Your task to perform on an android device: turn notification dots off Image 0: 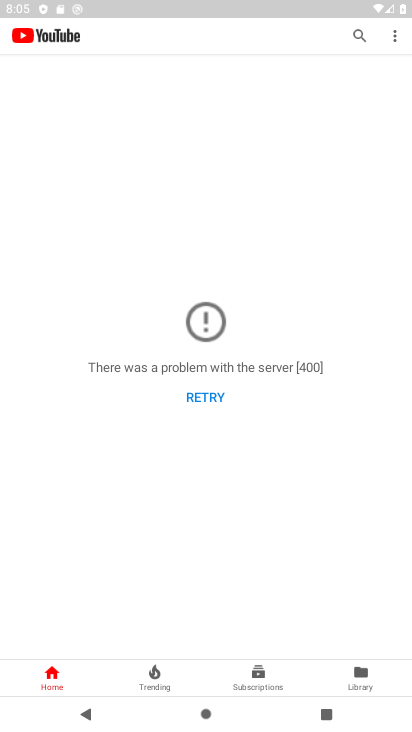
Step 0: press back button
Your task to perform on an android device: turn notification dots off Image 1: 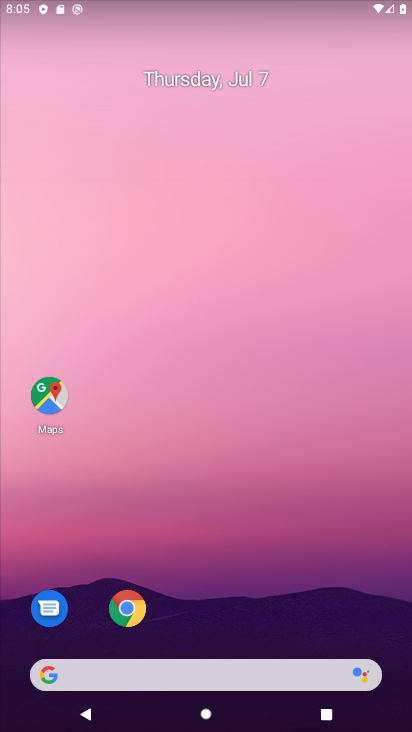
Step 1: drag from (219, 5) to (220, 483)
Your task to perform on an android device: turn notification dots off Image 2: 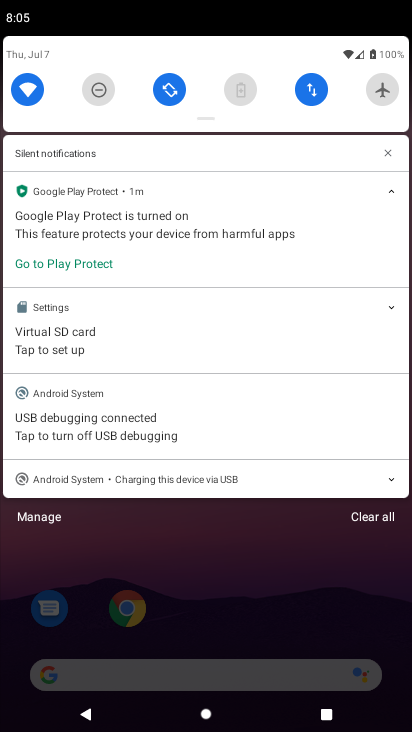
Step 2: click (174, 611)
Your task to perform on an android device: turn notification dots off Image 3: 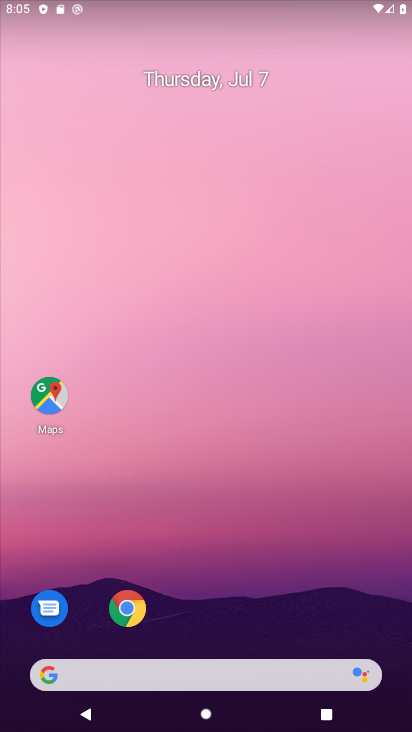
Step 3: drag from (190, 665) to (215, 324)
Your task to perform on an android device: turn notification dots off Image 4: 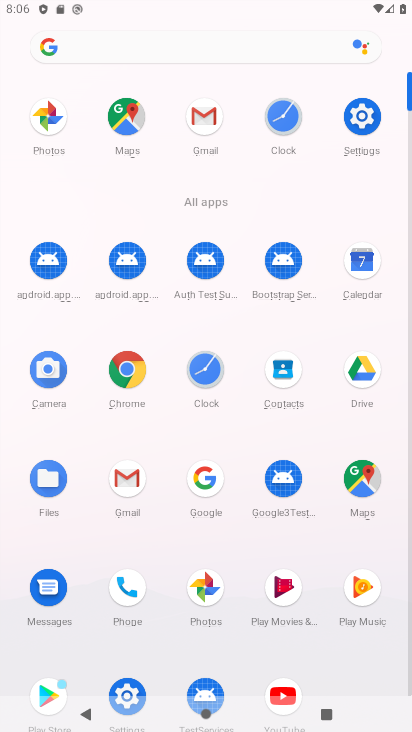
Step 4: click (353, 111)
Your task to perform on an android device: turn notification dots off Image 5: 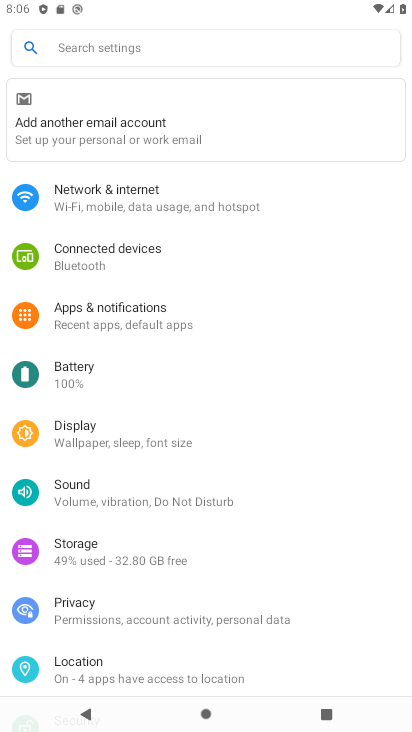
Step 5: click (132, 311)
Your task to perform on an android device: turn notification dots off Image 6: 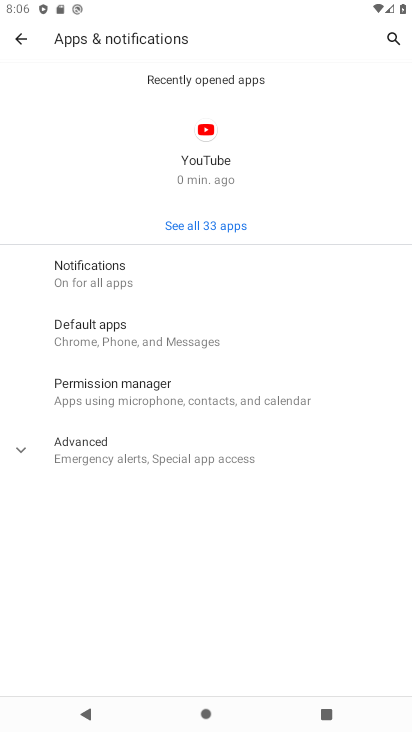
Step 6: click (119, 272)
Your task to perform on an android device: turn notification dots off Image 7: 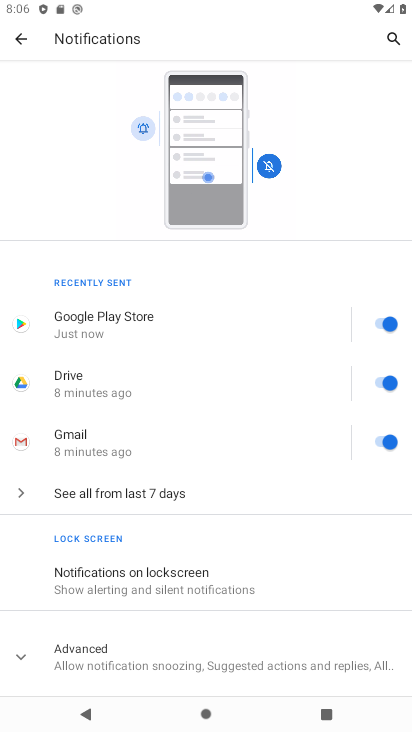
Step 7: drag from (152, 621) to (148, 333)
Your task to perform on an android device: turn notification dots off Image 8: 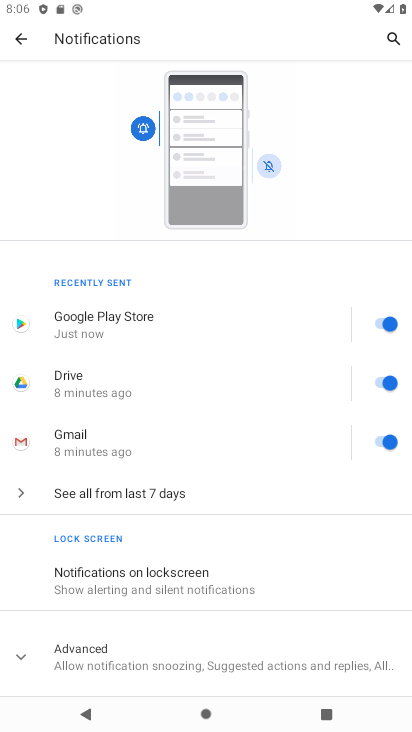
Step 8: click (110, 654)
Your task to perform on an android device: turn notification dots off Image 9: 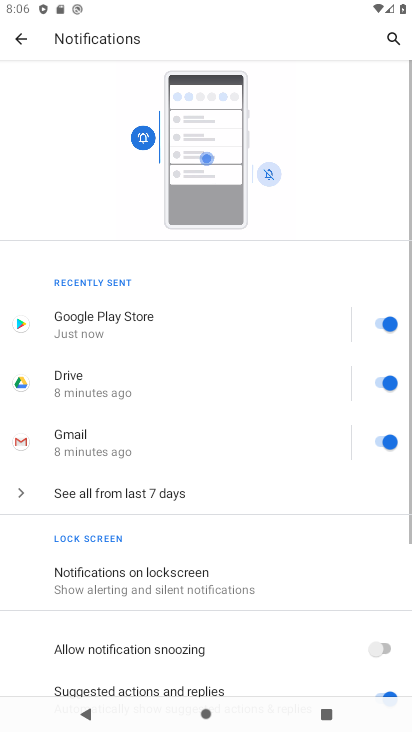
Step 9: drag from (213, 678) to (288, 294)
Your task to perform on an android device: turn notification dots off Image 10: 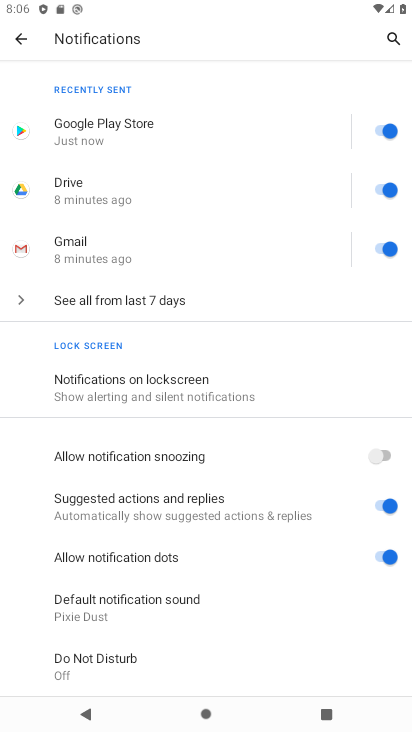
Step 10: click (383, 554)
Your task to perform on an android device: turn notification dots off Image 11: 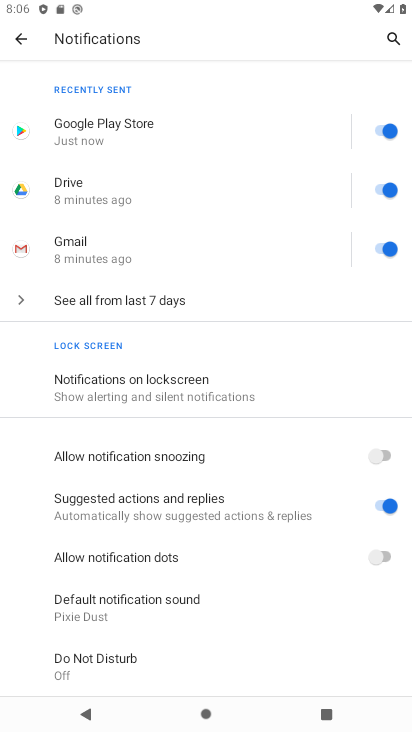
Step 11: task complete